Your task to perform on an android device: Open calendar and show me the second week of next month Image 0: 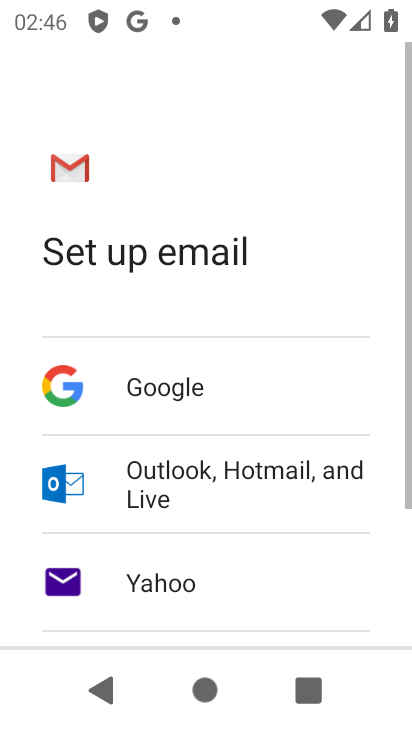
Step 0: press back button
Your task to perform on an android device: Open calendar and show me the second week of next month Image 1: 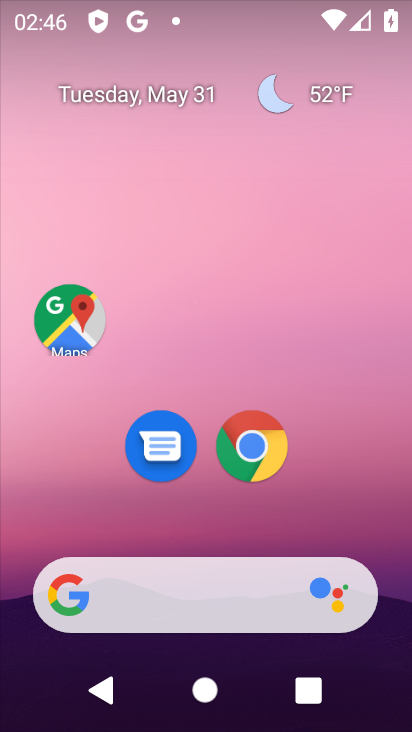
Step 1: drag from (322, 507) to (264, 147)
Your task to perform on an android device: Open calendar and show me the second week of next month Image 2: 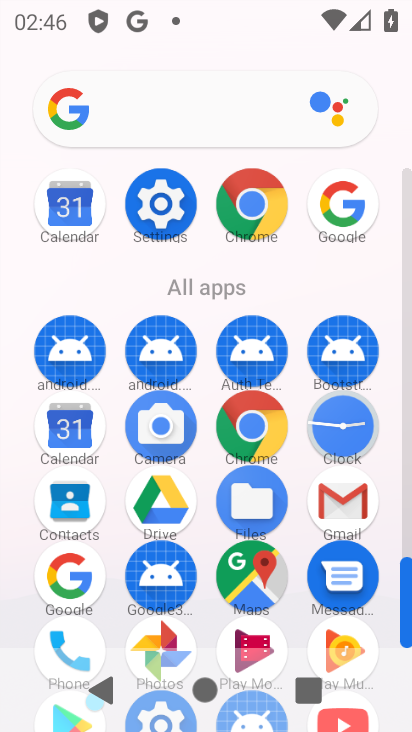
Step 2: click (70, 433)
Your task to perform on an android device: Open calendar and show me the second week of next month Image 3: 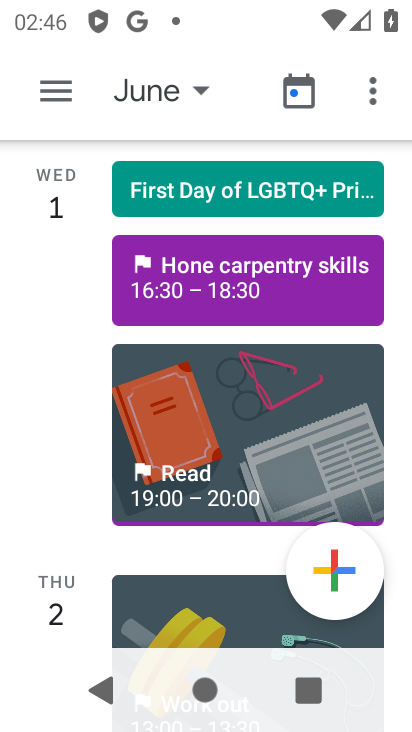
Step 3: click (303, 98)
Your task to perform on an android device: Open calendar and show me the second week of next month Image 4: 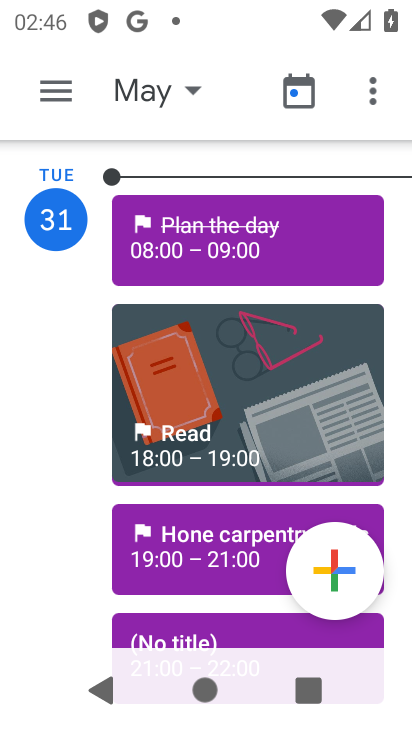
Step 4: click (190, 89)
Your task to perform on an android device: Open calendar and show me the second week of next month Image 5: 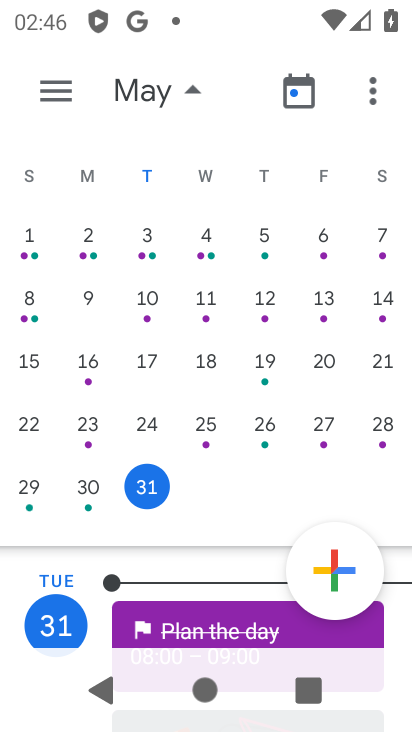
Step 5: drag from (375, 388) to (22, 324)
Your task to perform on an android device: Open calendar and show me the second week of next month Image 6: 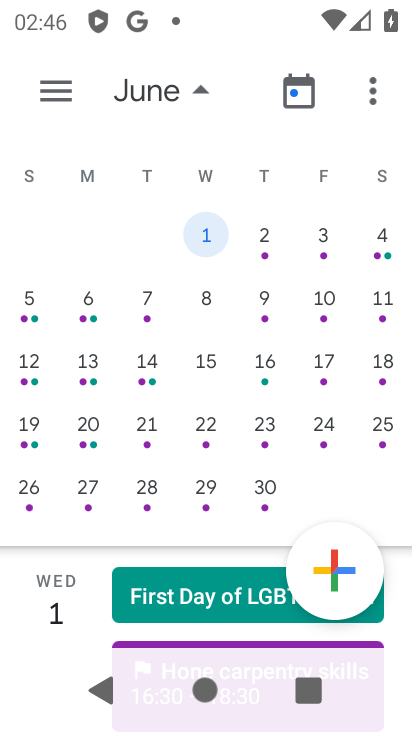
Step 6: click (90, 356)
Your task to perform on an android device: Open calendar and show me the second week of next month Image 7: 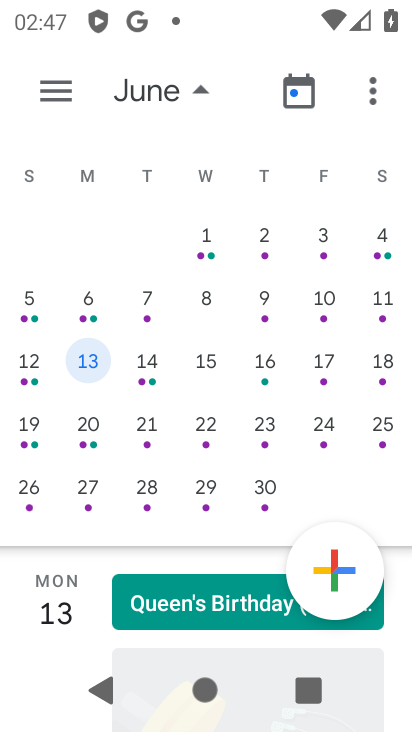
Step 7: click (94, 364)
Your task to perform on an android device: Open calendar and show me the second week of next month Image 8: 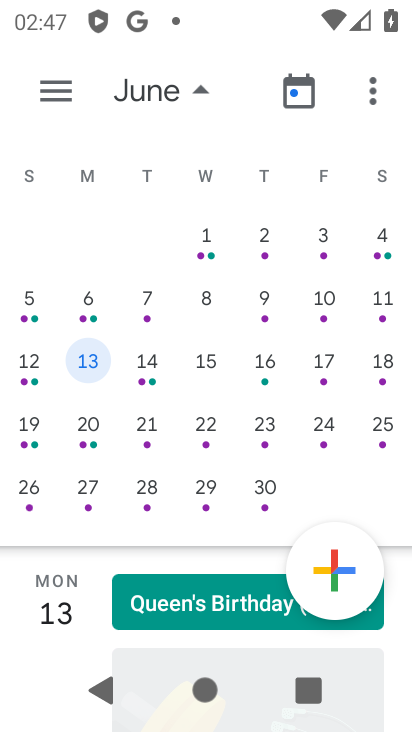
Step 8: click (43, 88)
Your task to perform on an android device: Open calendar and show me the second week of next month Image 9: 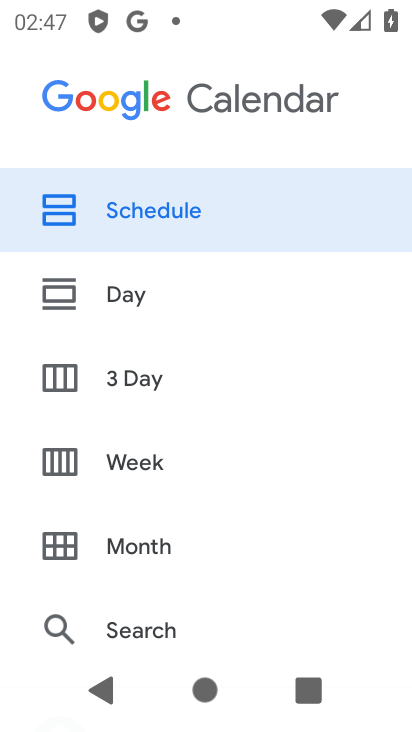
Step 9: click (138, 459)
Your task to perform on an android device: Open calendar and show me the second week of next month Image 10: 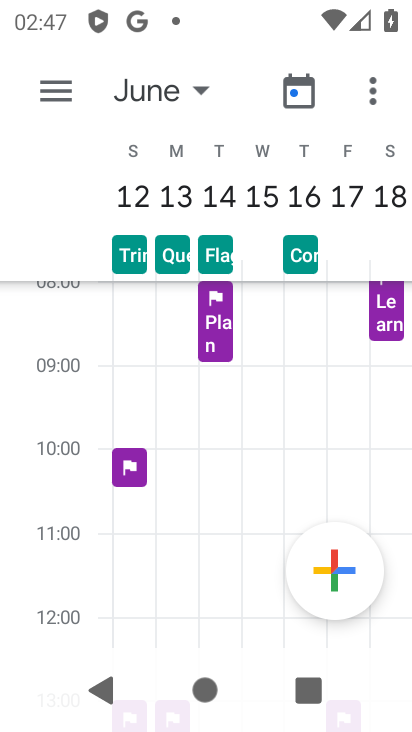
Step 10: task complete